Your task to perform on an android device: change the clock display to show seconds Image 0: 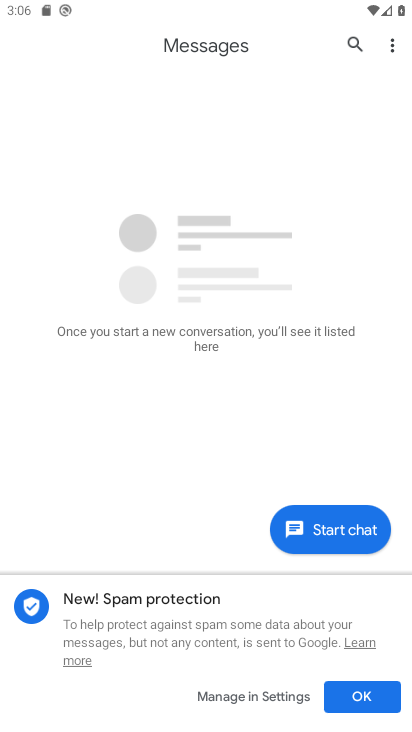
Step 0: press home button
Your task to perform on an android device: change the clock display to show seconds Image 1: 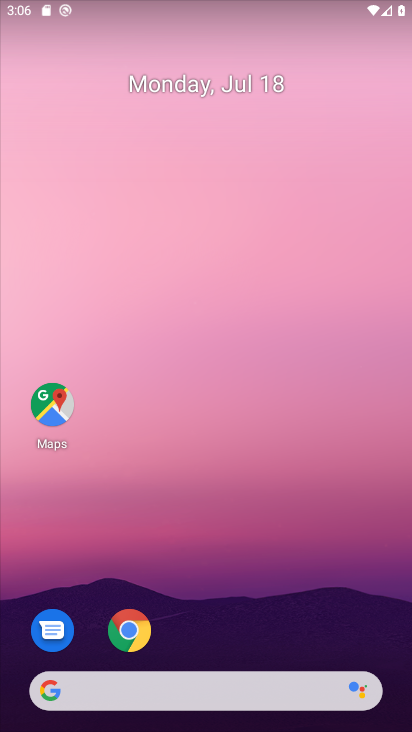
Step 1: drag from (312, 622) to (240, 104)
Your task to perform on an android device: change the clock display to show seconds Image 2: 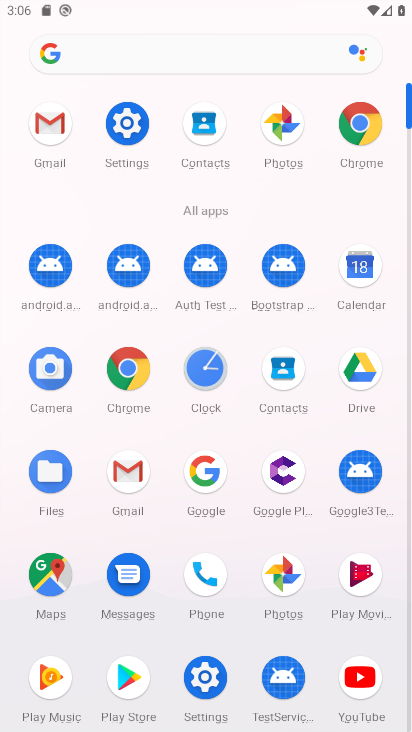
Step 2: click (212, 366)
Your task to perform on an android device: change the clock display to show seconds Image 3: 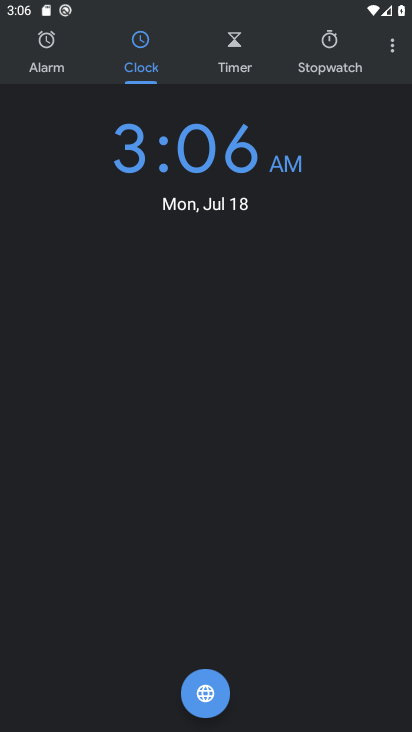
Step 3: click (398, 51)
Your task to perform on an android device: change the clock display to show seconds Image 4: 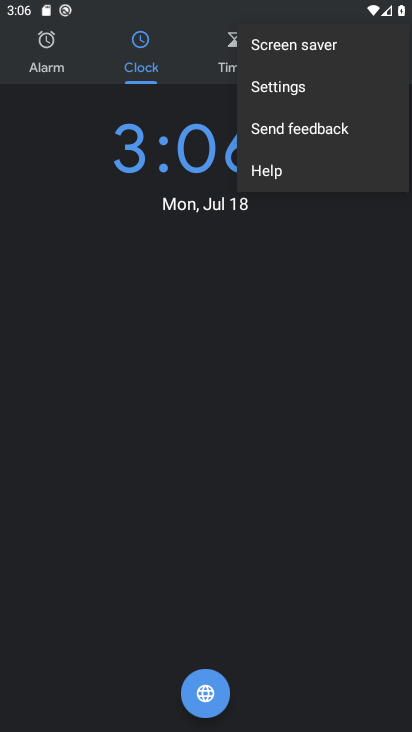
Step 4: click (345, 82)
Your task to perform on an android device: change the clock display to show seconds Image 5: 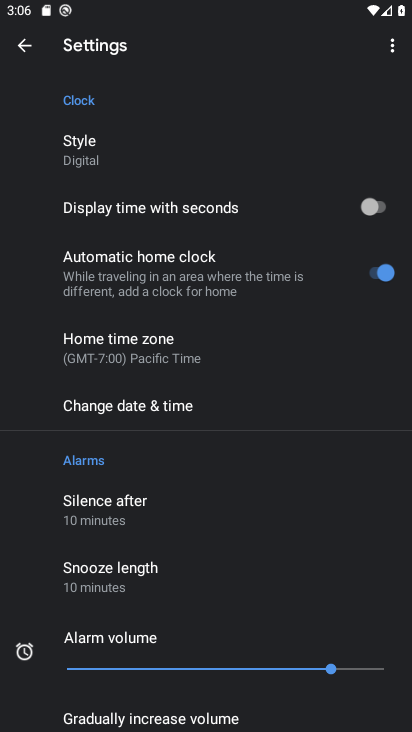
Step 5: click (381, 217)
Your task to perform on an android device: change the clock display to show seconds Image 6: 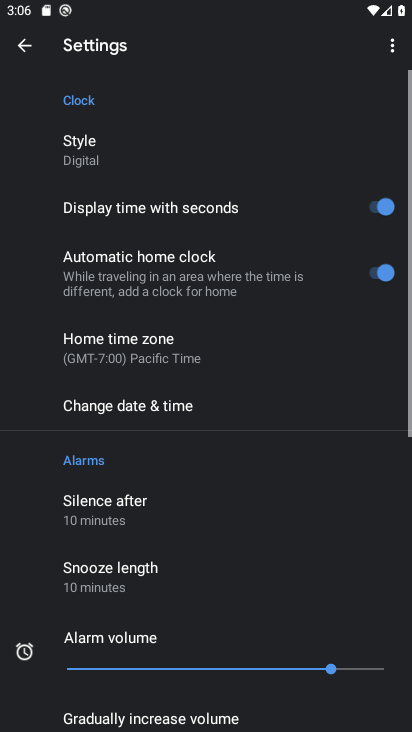
Step 6: task complete